Your task to perform on an android device: toggle airplane mode Image 0: 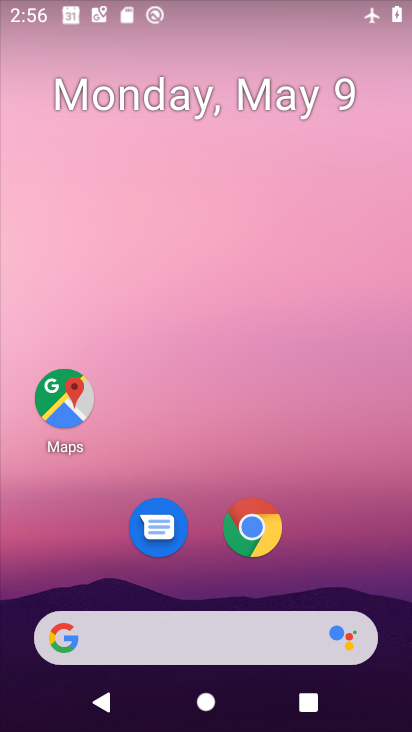
Step 0: drag from (219, 613) to (251, 143)
Your task to perform on an android device: toggle airplane mode Image 1: 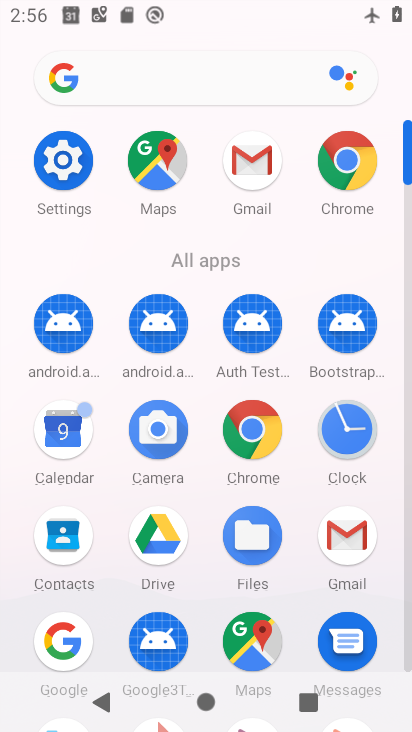
Step 1: click (59, 178)
Your task to perform on an android device: toggle airplane mode Image 2: 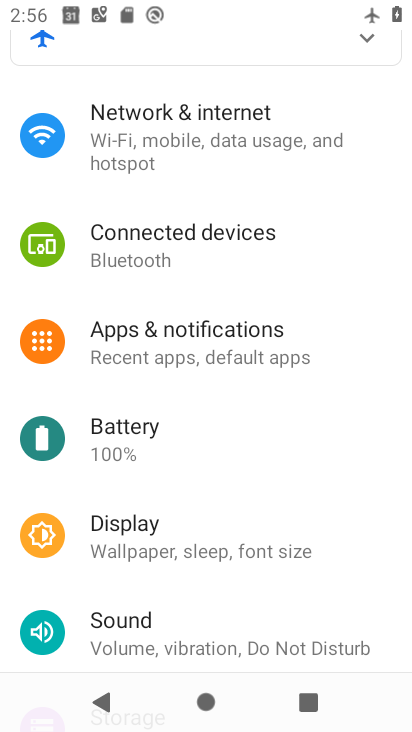
Step 2: click (195, 166)
Your task to perform on an android device: toggle airplane mode Image 3: 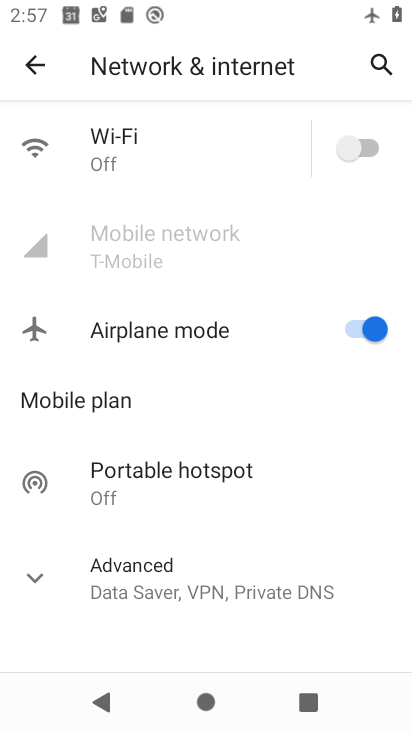
Step 3: click (352, 331)
Your task to perform on an android device: toggle airplane mode Image 4: 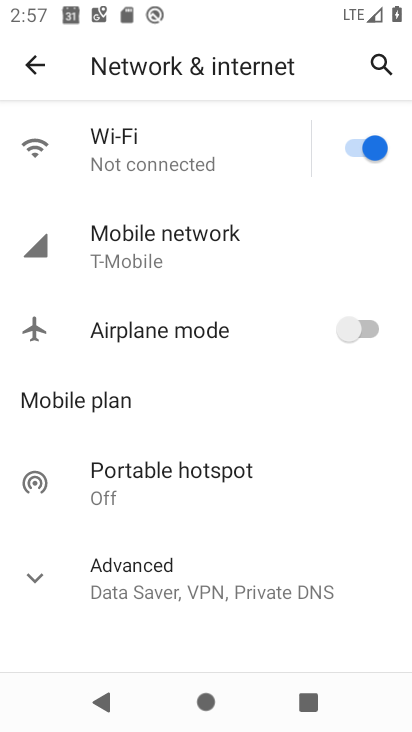
Step 4: task complete